Your task to perform on an android device: Open Amazon Image 0: 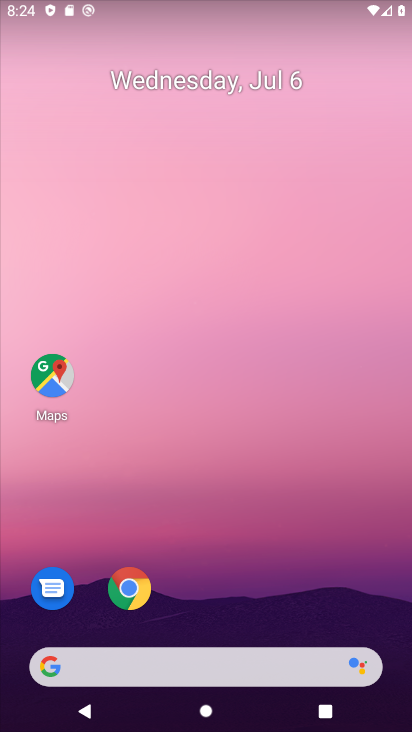
Step 0: drag from (369, 602) to (259, 85)
Your task to perform on an android device: Open Amazon Image 1: 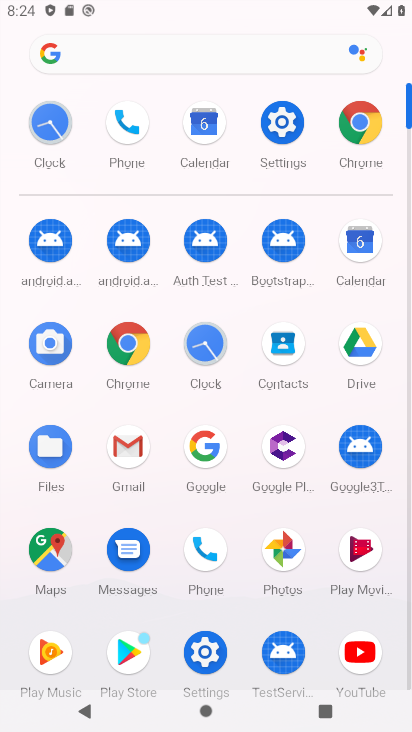
Step 1: click (367, 123)
Your task to perform on an android device: Open Amazon Image 2: 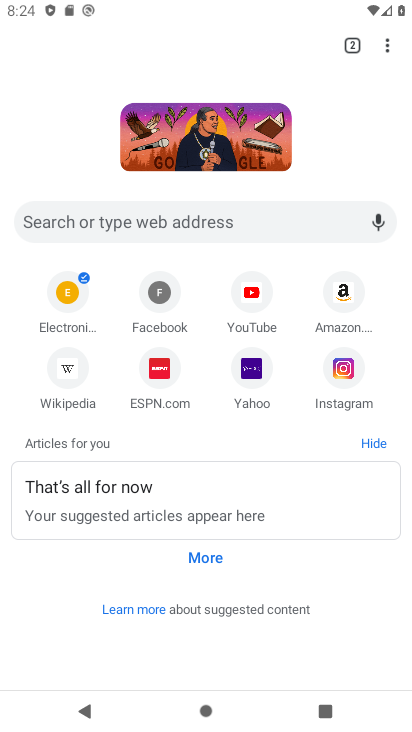
Step 2: click (350, 295)
Your task to perform on an android device: Open Amazon Image 3: 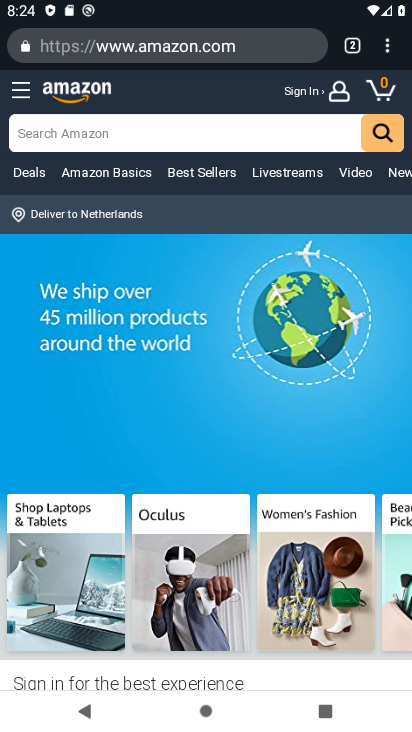
Step 3: task complete